Your task to perform on an android device: change notification settings in the gmail app Image 0: 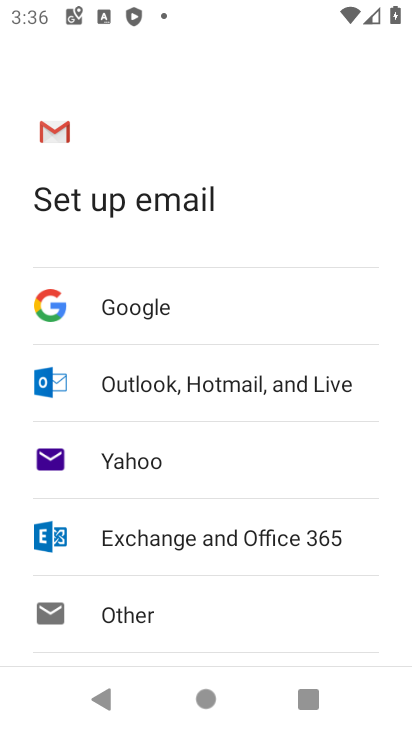
Step 0: press home button
Your task to perform on an android device: change notification settings in the gmail app Image 1: 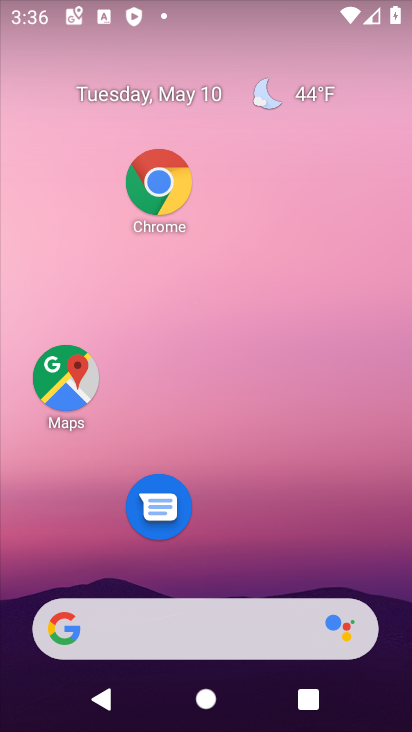
Step 1: drag from (254, 565) to (287, 17)
Your task to perform on an android device: change notification settings in the gmail app Image 2: 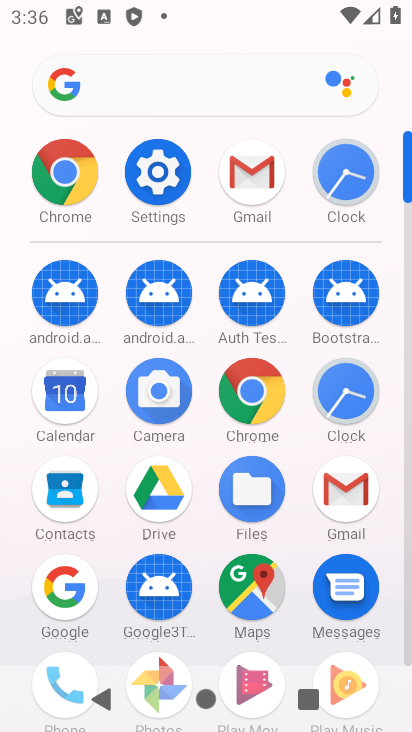
Step 2: click (176, 206)
Your task to perform on an android device: change notification settings in the gmail app Image 3: 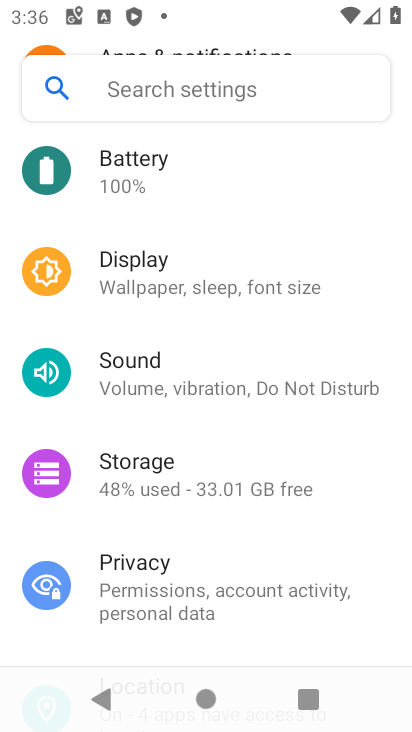
Step 3: drag from (176, 206) to (175, 452)
Your task to perform on an android device: change notification settings in the gmail app Image 4: 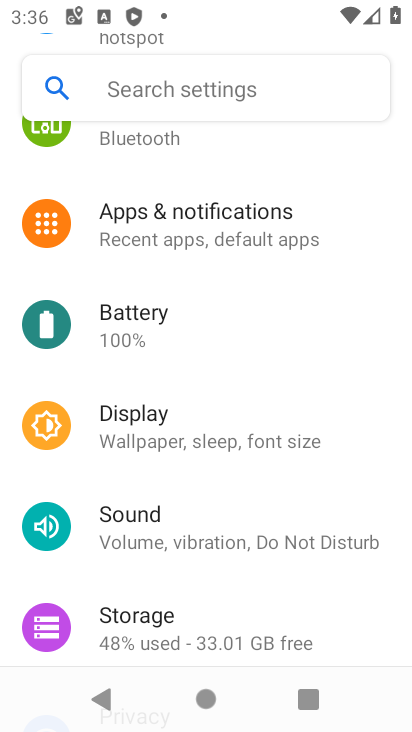
Step 4: click (174, 203)
Your task to perform on an android device: change notification settings in the gmail app Image 5: 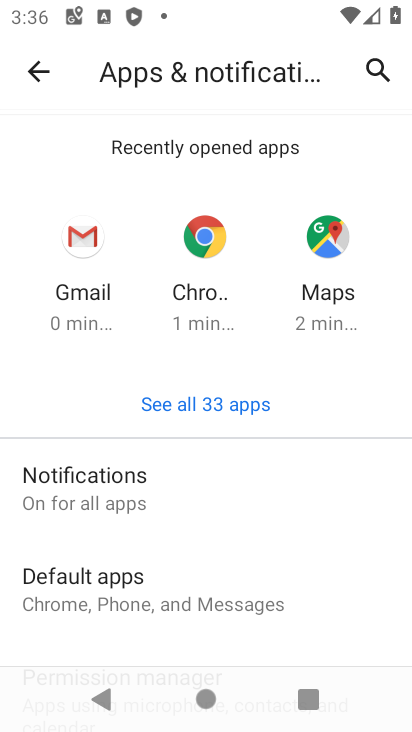
Step 5: drag from (163, 490) to (177, 241)
Your task to perform on an android device: change notification settings in the gmail app Image 6: 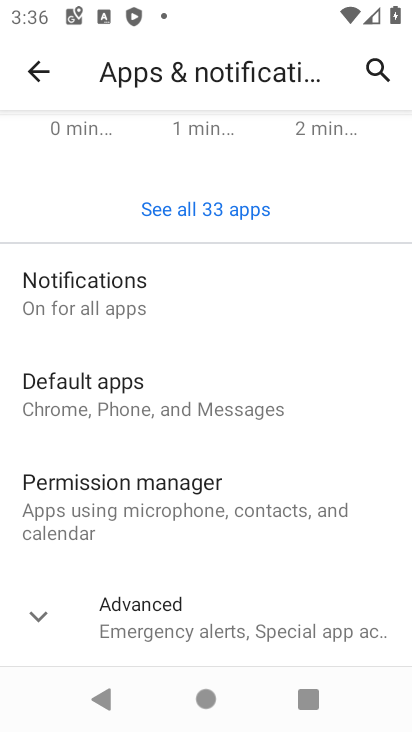
Step 6: click (164, 312)
Your task to perform on an android device: change notification settings in the gmail app Image 7: 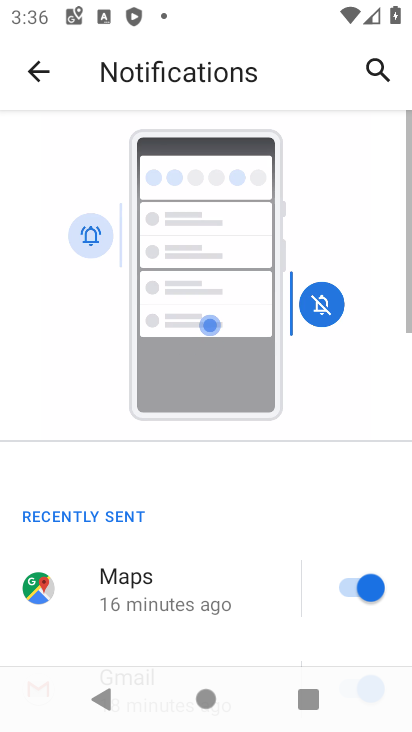
Step 7: drag from (200, 514) to (176, 243)
Your task to perform on an android device: change notification settings in the gmail app Image 8: 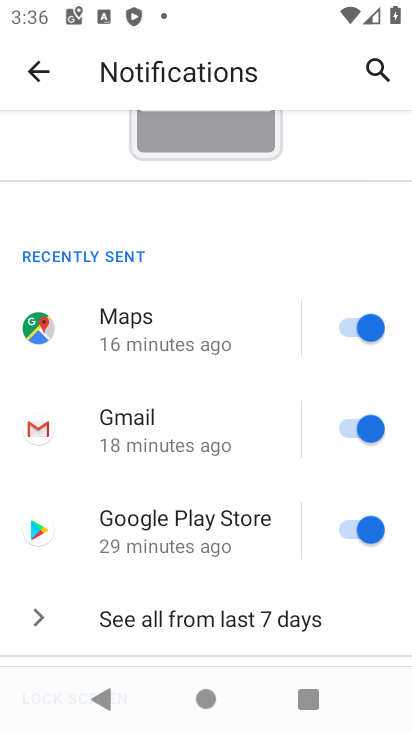
Step 8: drag from (97, 436) to (103, 259)
Your task to perform on an android device: change notification settings in the gmail app Image 9: 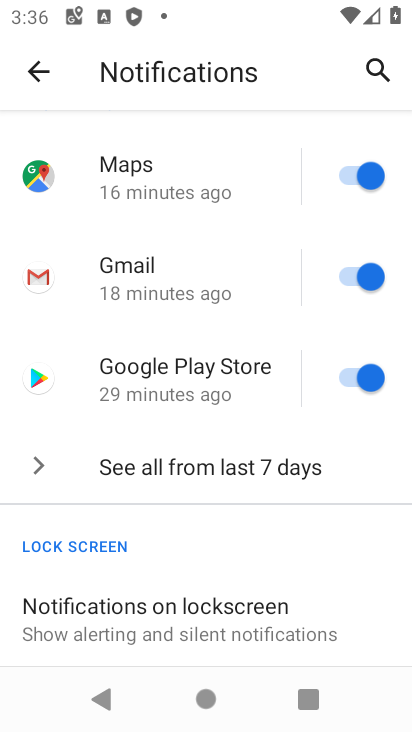
Step 9: drag from (105, 396) to (99, 182)
Your task to perform on an android device: change notification settings in the gmail app Image 10: 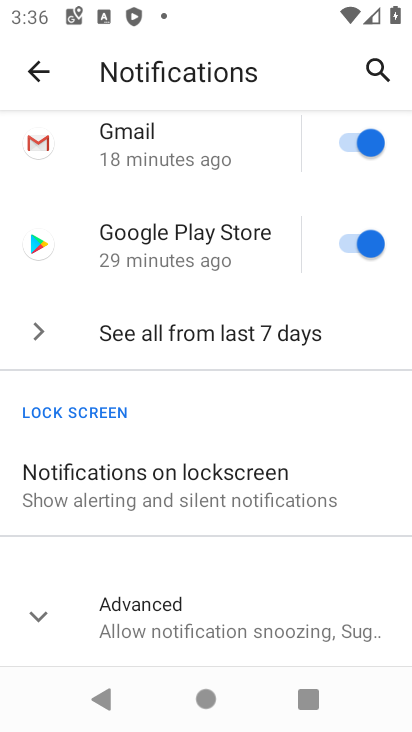
Step 10: click (151, 574)
Your task to perform on an android device: change notification settings in the gmail app Image 11: 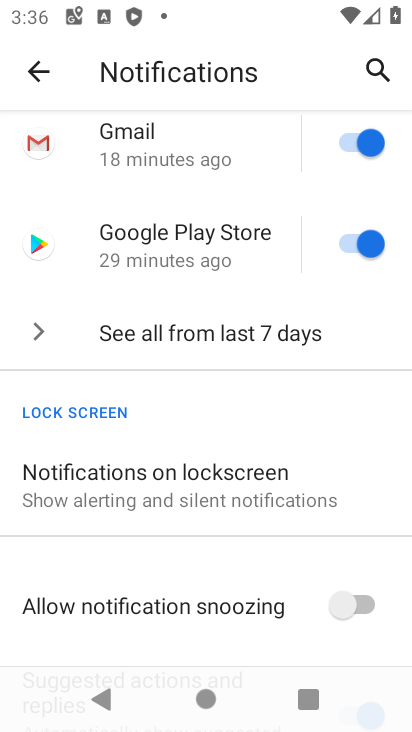
Step 11: drag from (151, 574) to (110, 187)
Your task to perform on an android device: change notification settings in the gmail app Image 12: 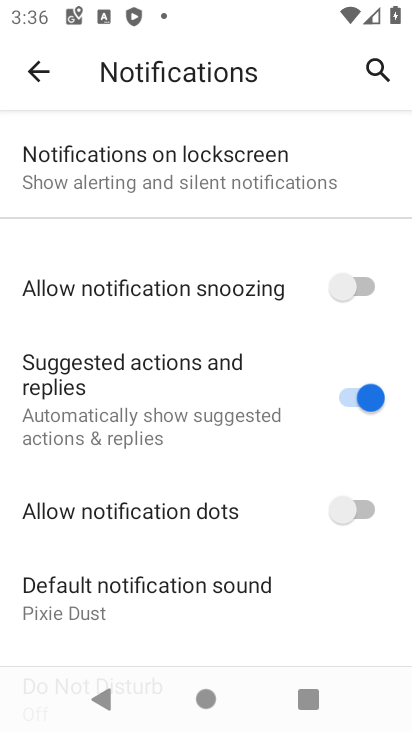
Step 12: click (342, 274)
Your task to perform on an android device: change notification settings in the gmail app Image 13: 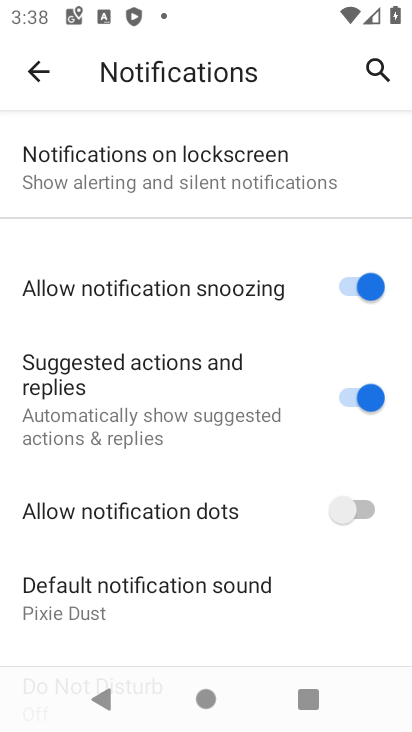
Step 13: task complete